Your task to perform on an android device: open app "Upside-Cash back on gas & food" Image 0: 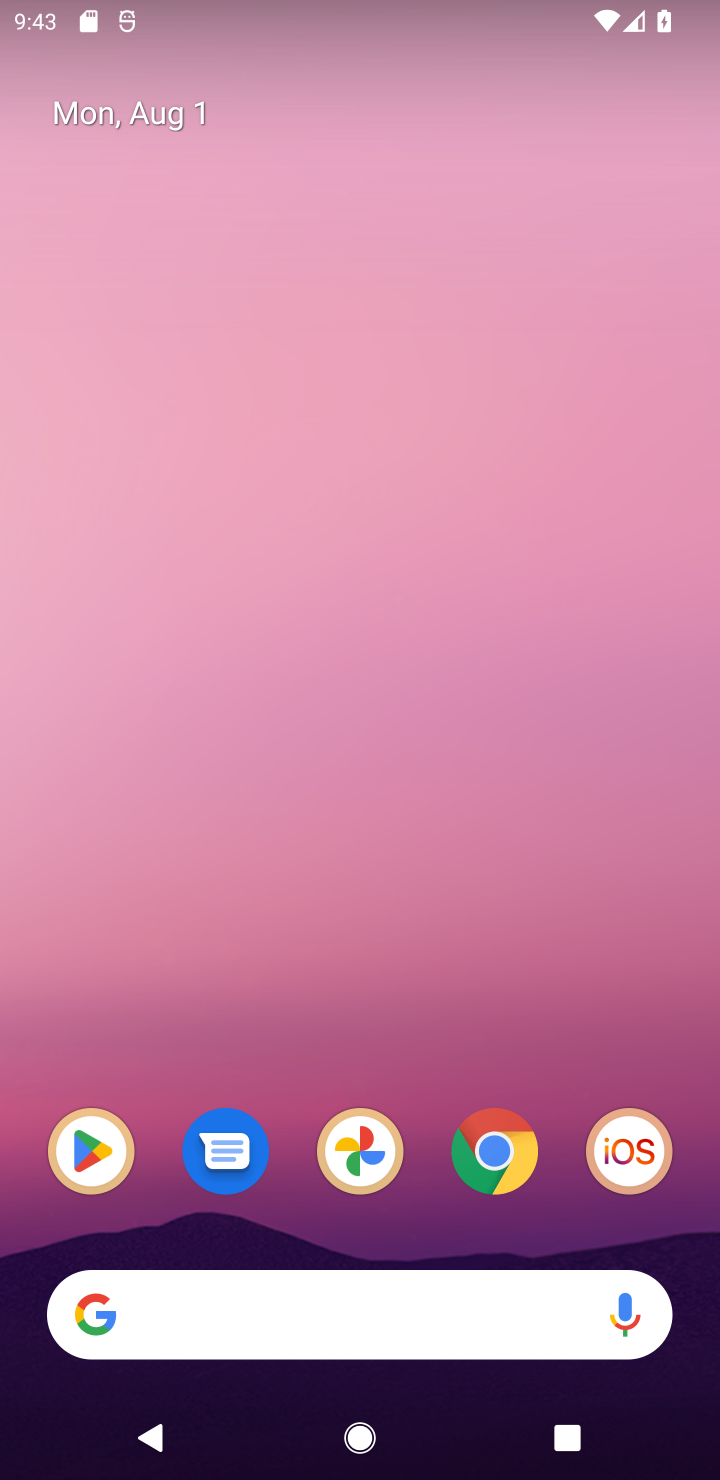
Step 0: drag from (379, 1268) to (379, 408)
Your task to perform on an android device: open app "Upside-Cash back on gas & food" Image 1: 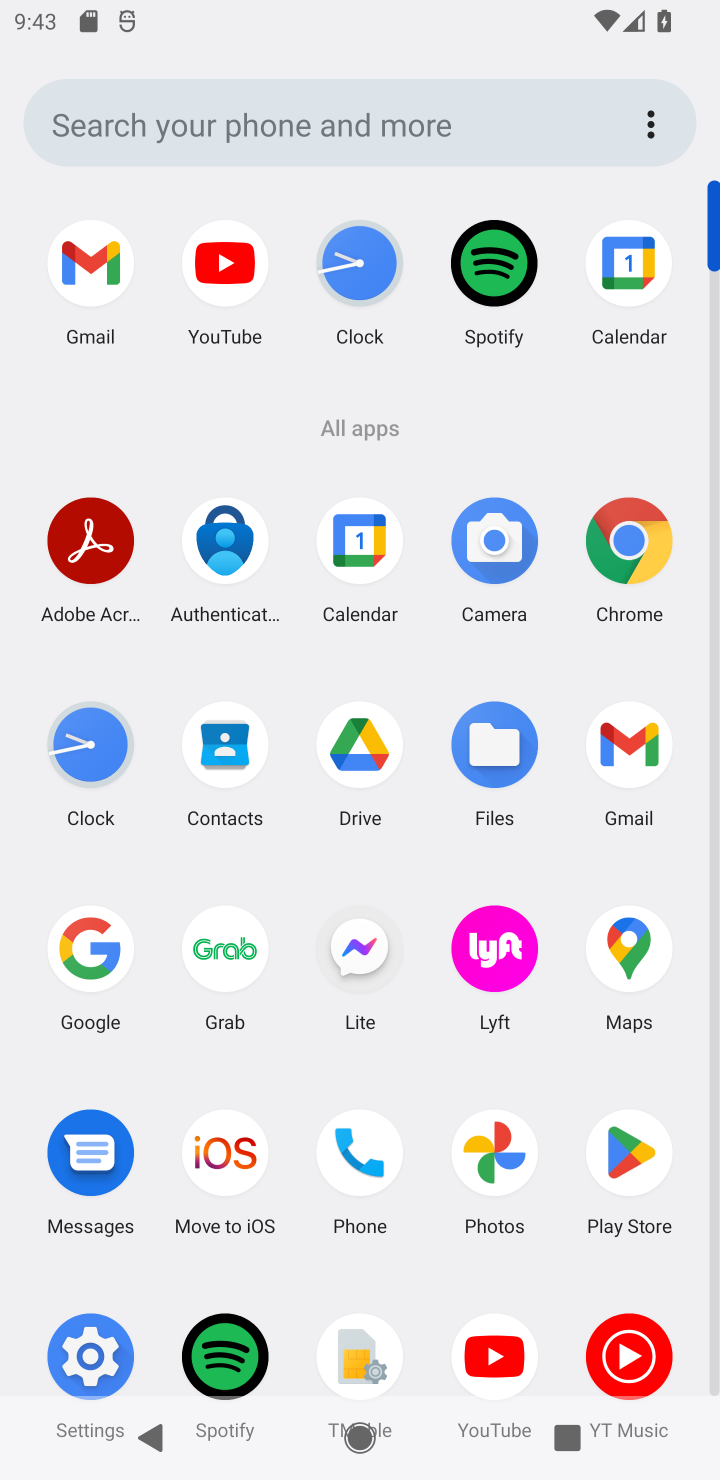
Step 1: click (615, 1147)
Your task to perform on an android device: open app "Upside-Cash back on gas & food" Image 2: 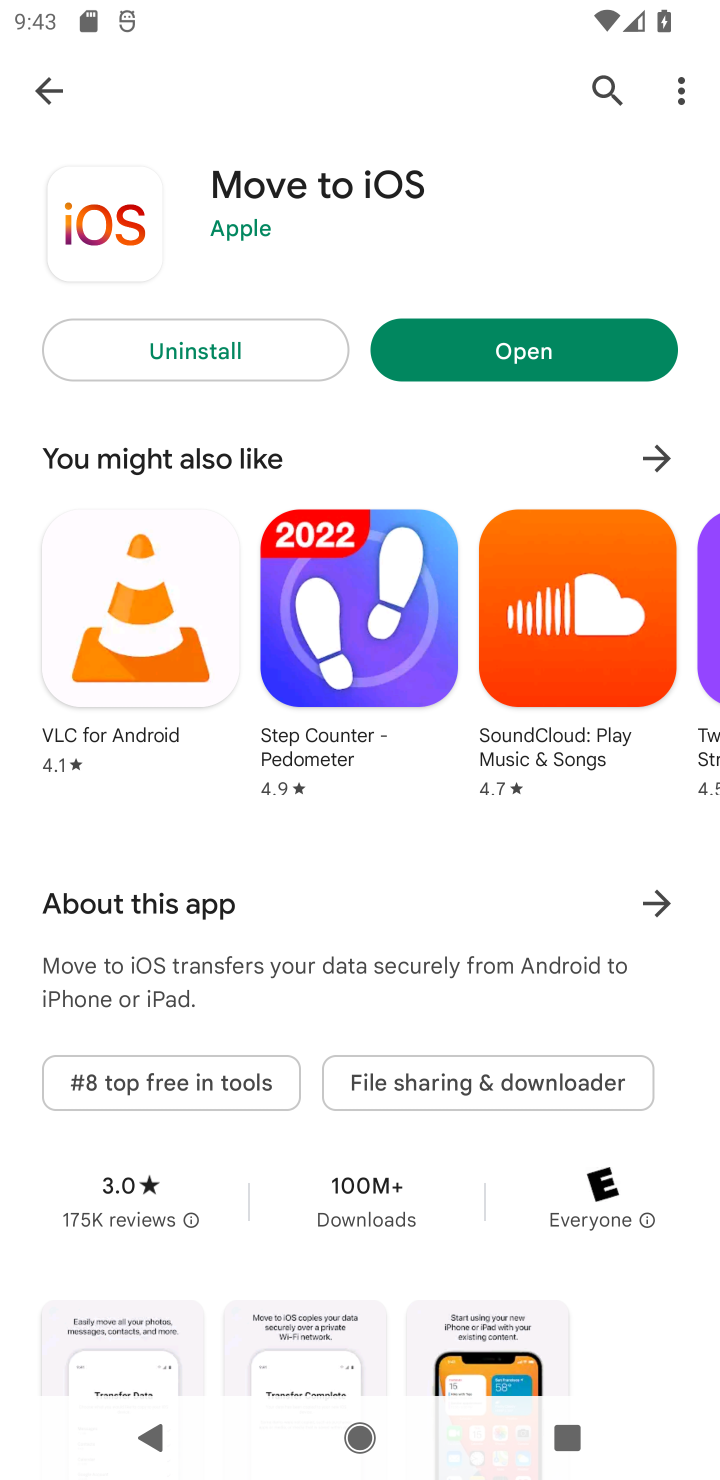
Step 2: click (42, 101)
Your task to perform on an android device: open app "Upside-Cash back on gas & food" Image 3: 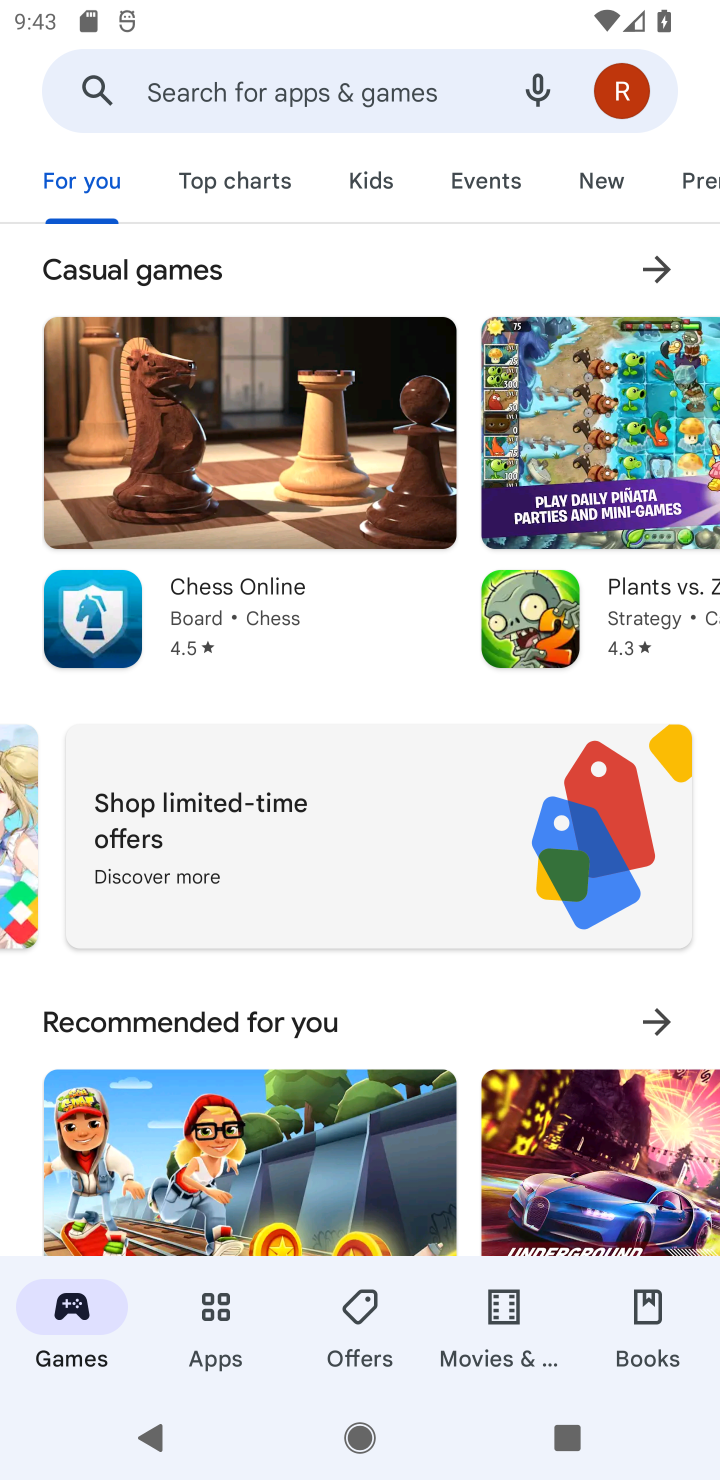
Step 3: click (209, 94)
Your task to perform on an android device: open app "Upside-Cash back on gas & food" Image 4: 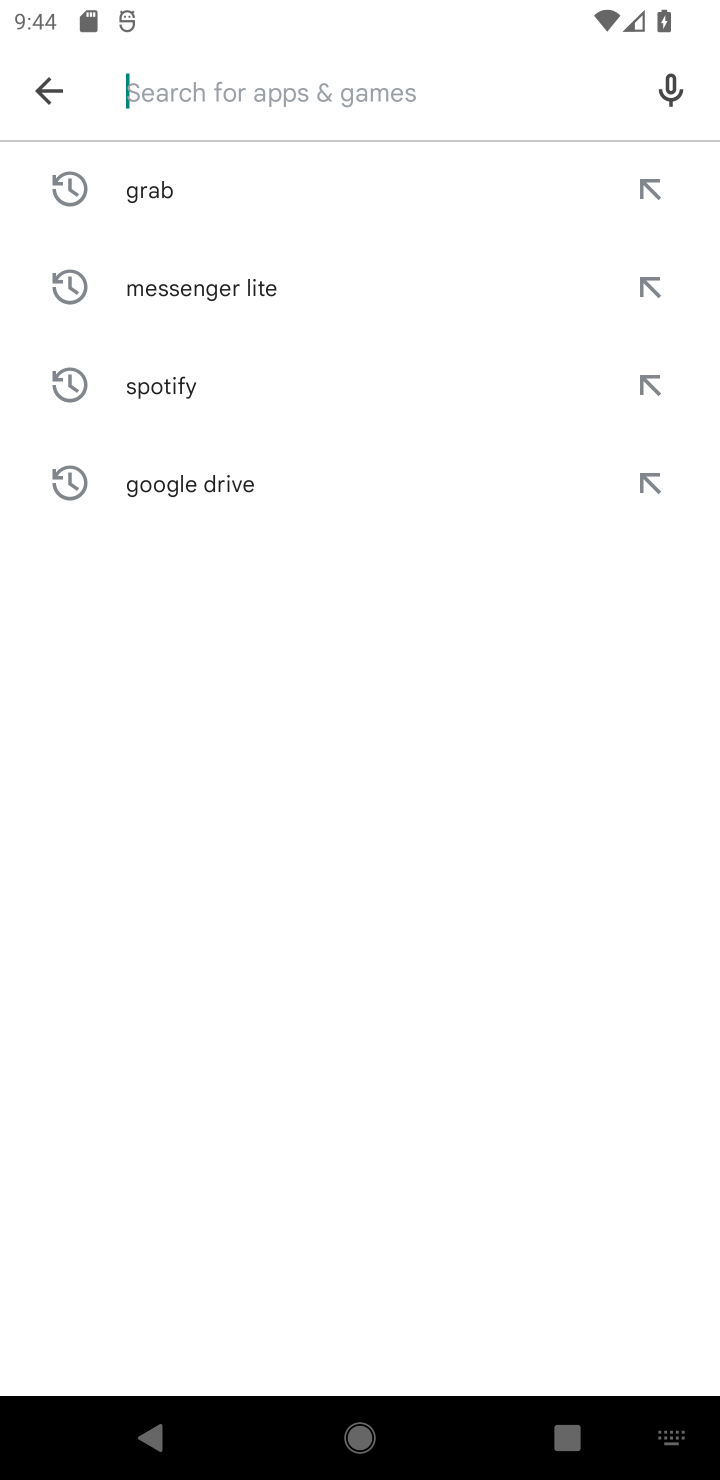
Step 4: type "Upside-Cash back on gas & food"
Your task to perform on an android device: open app "Upside-Cash back on gas & food" Image 5: 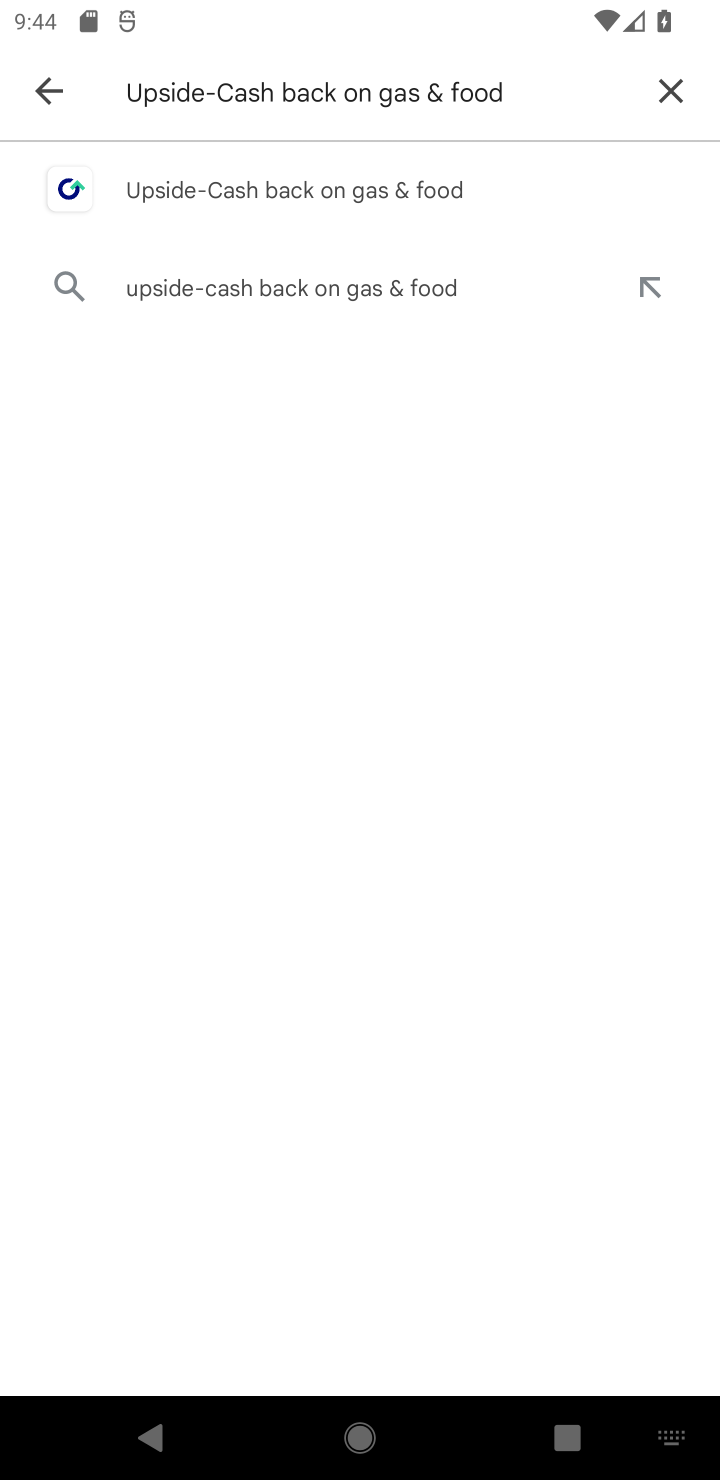
Step 5: click (157, 185)
Your task to perform on an android device: open app "Upside-Cash back on gas & food" Image 6: 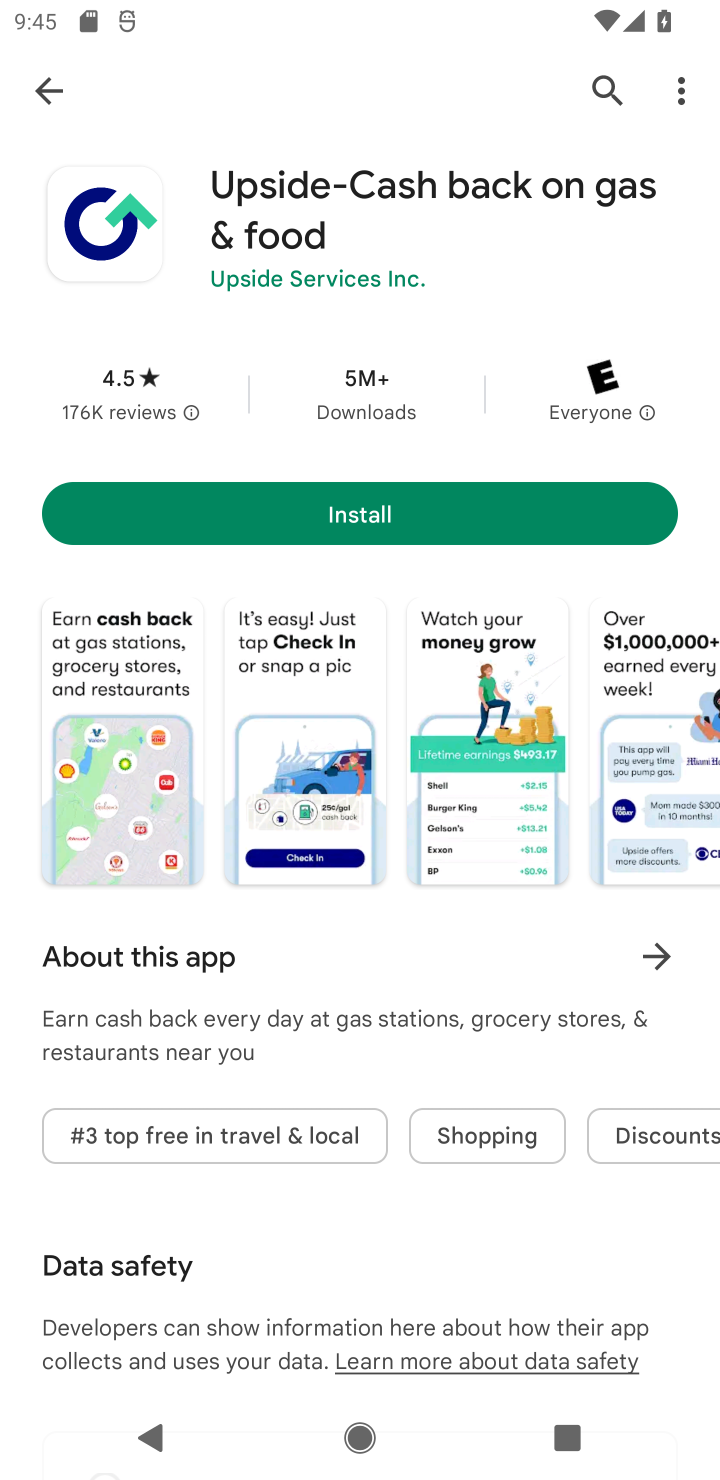
Step 6: click (307, 506)
Your task to perform on an android device: open app "Upside-Cash back on gas & food" Image 7: 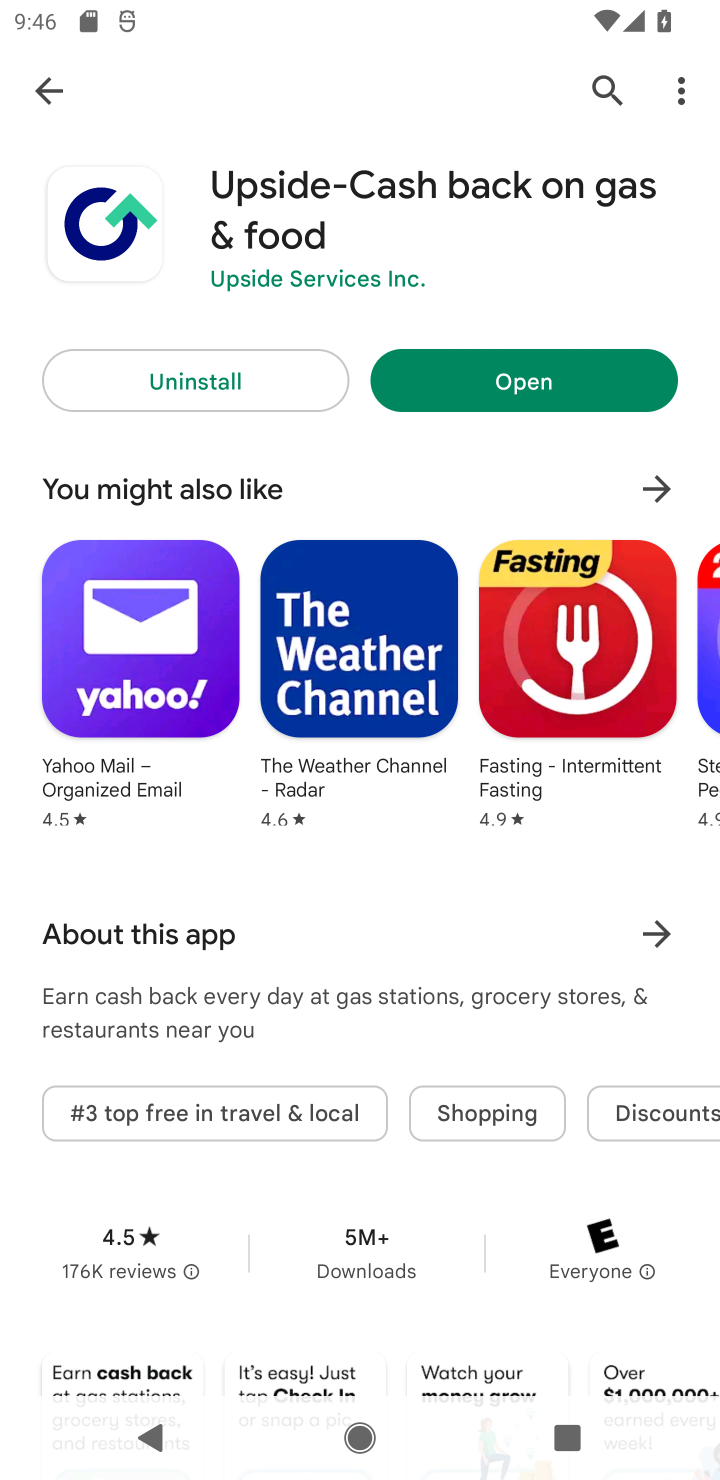
Step 7: click (546, 376)
Your task to perform on an android device: open app "Upside-Cash back on gas & food" Image 8: 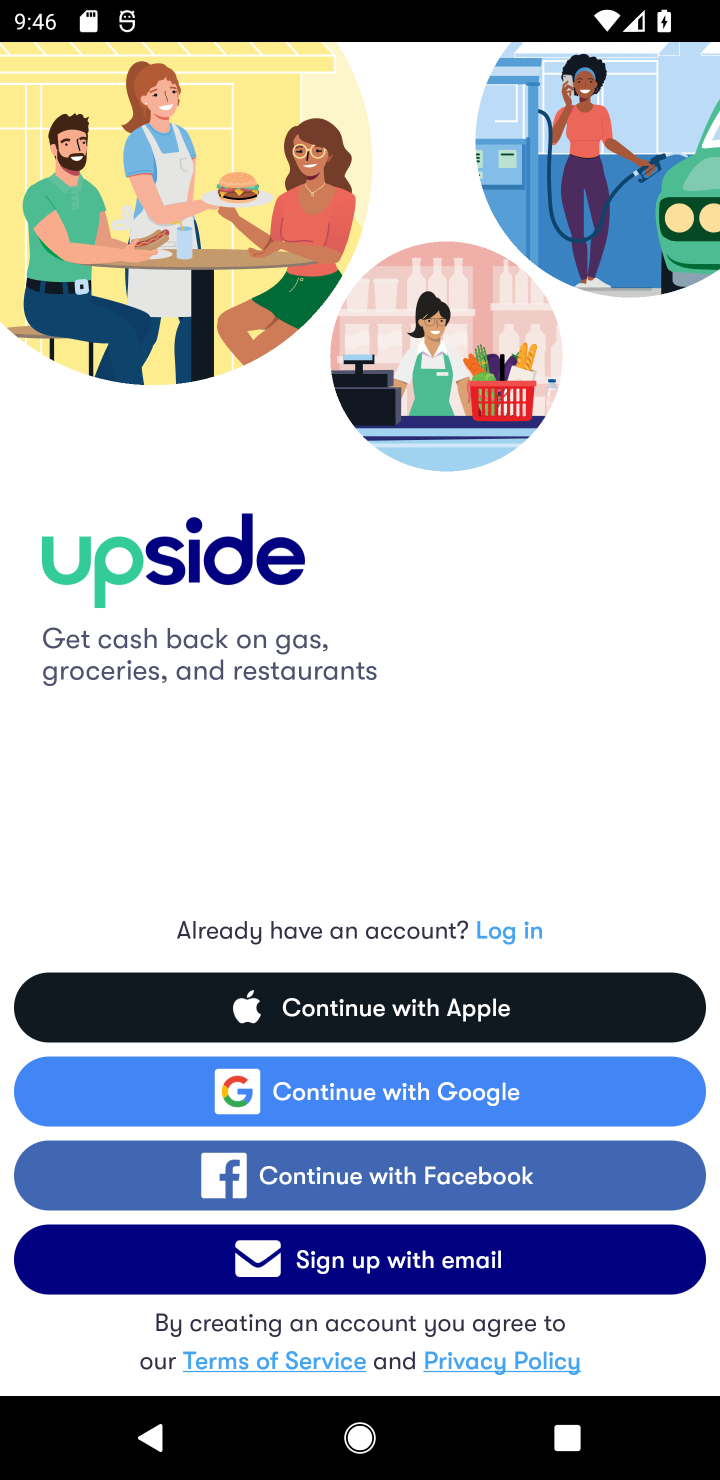
Step 8: task complete